Your task to perform on an android device: add a label to a message in the gmail app Image 0: 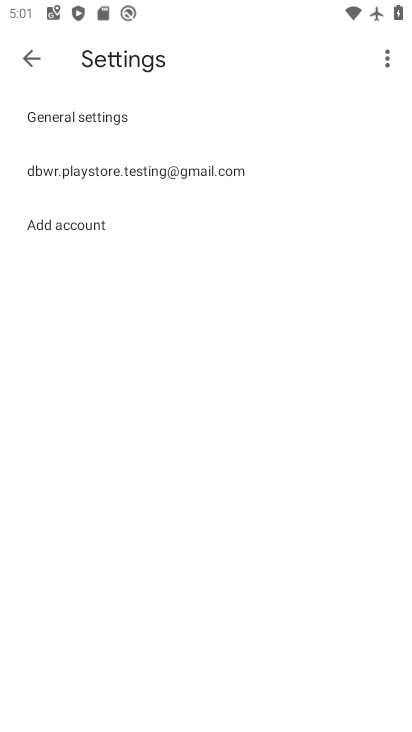
Step 0: press home button
Your task to perform on an android device: add a label to a message in the gmail app Image 1: 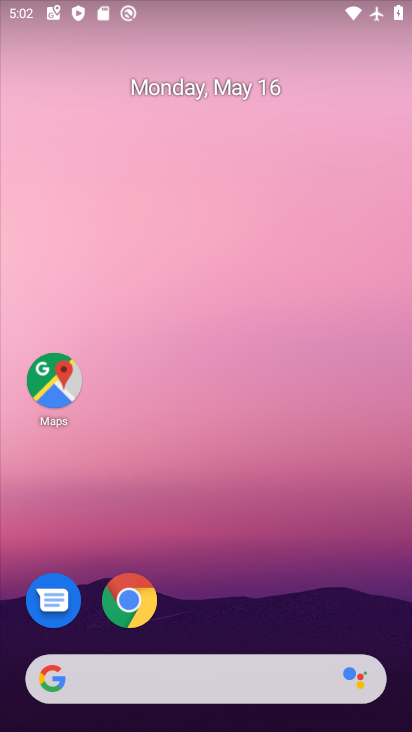
Step 1: drag from (237, 652) to (356, 0)
Your task to perform on an android device: add a label to a message in the gmail app Image 2: 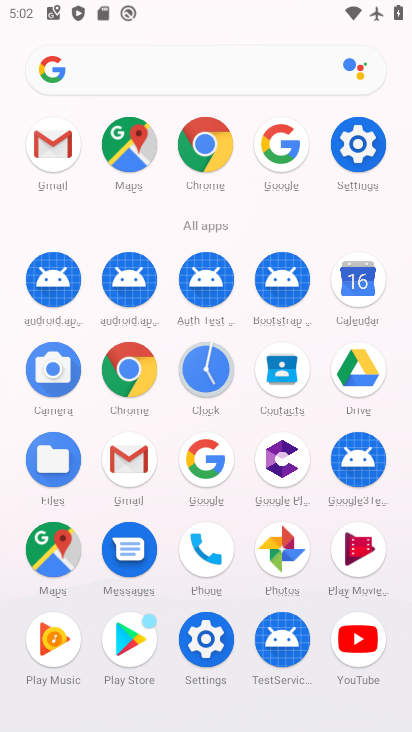
Step 2: click (140, 459)
Your task to perform on an android device: add a label to a message in the gmail app Image 3: 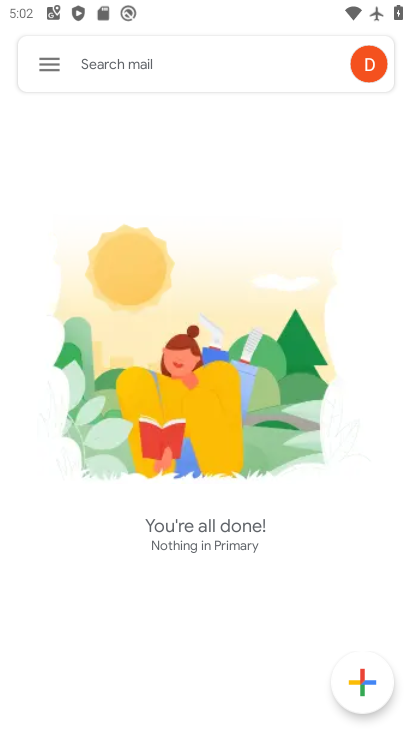
Step 3: task complete